Your task to perform on an android device: Go to Maps Image 0: 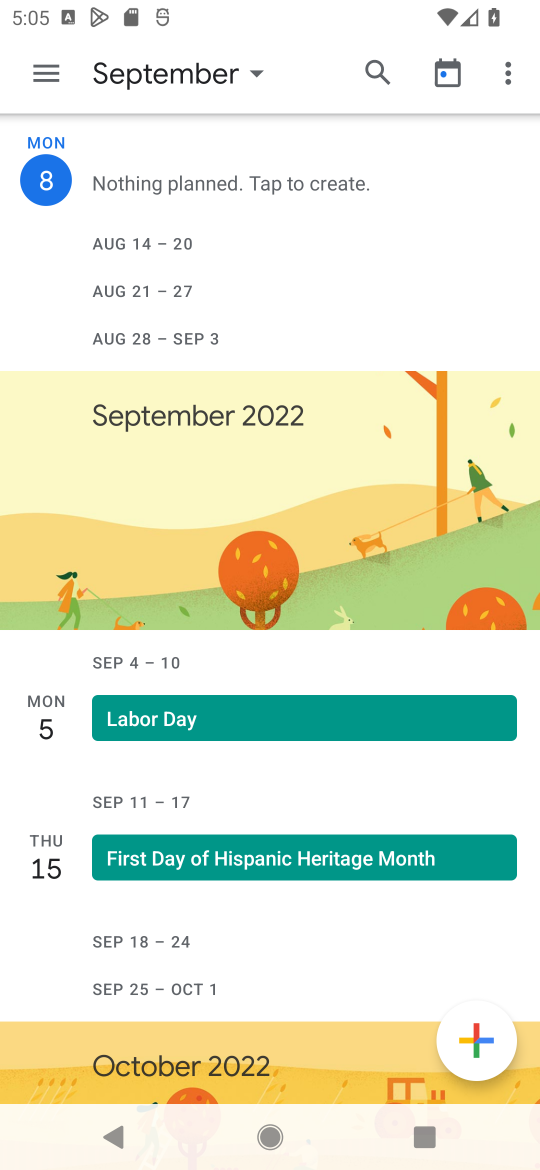
Step 0: press home button
Your task to perform on an android device: Go to Maps Image 1: 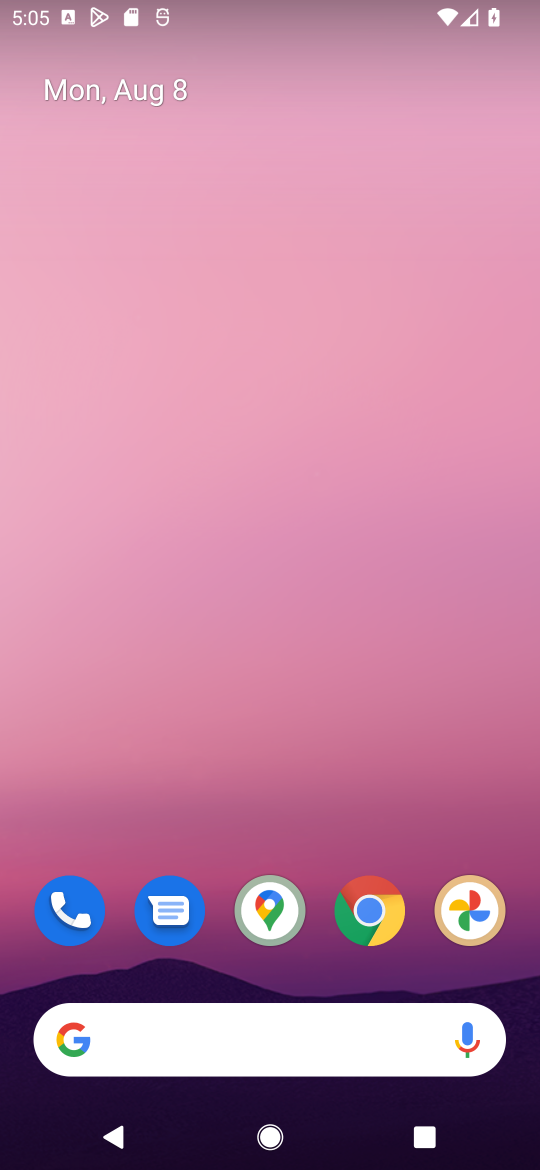
Step 1: click (263, 904)
Your task to perform on an android device: Go to Maps Image 2: 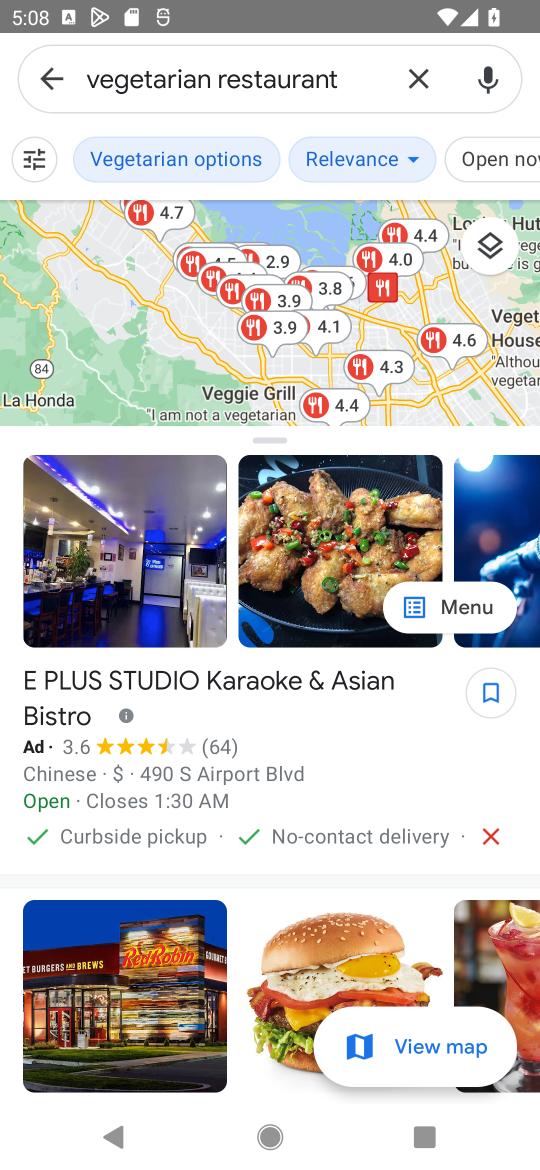
Step 2: task complete